Your task to perform on an android device: Go to ESPN.com Image 0: 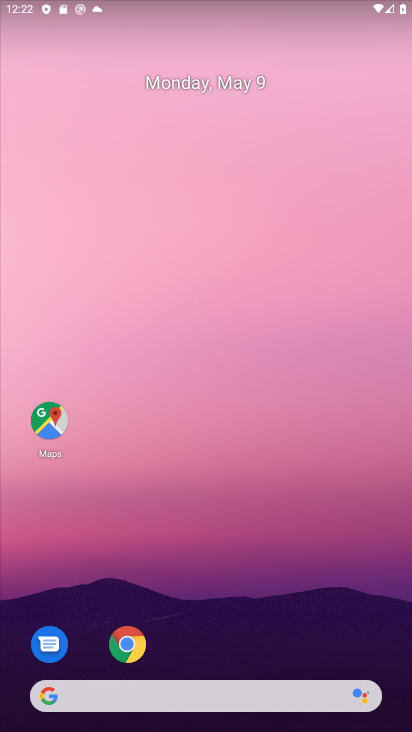
Step 0: drag from (364, 654) to (58, 1)
Your task to perform on an android device: Go to ESPN.com Image 1: 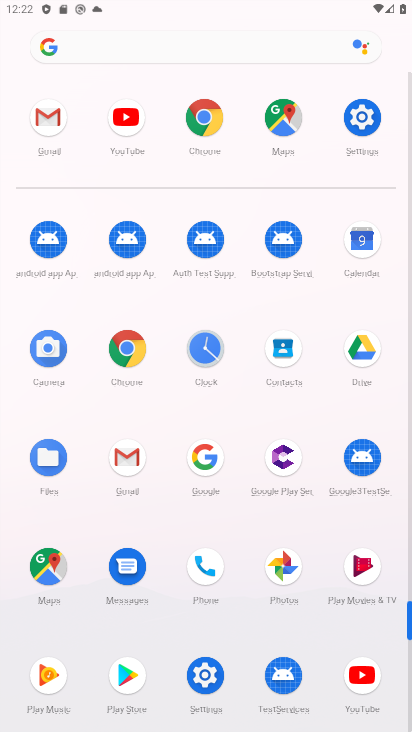
Step 1: click (204, 117)
Your task to perform on an android device: Go to ESPN.com Image 2: 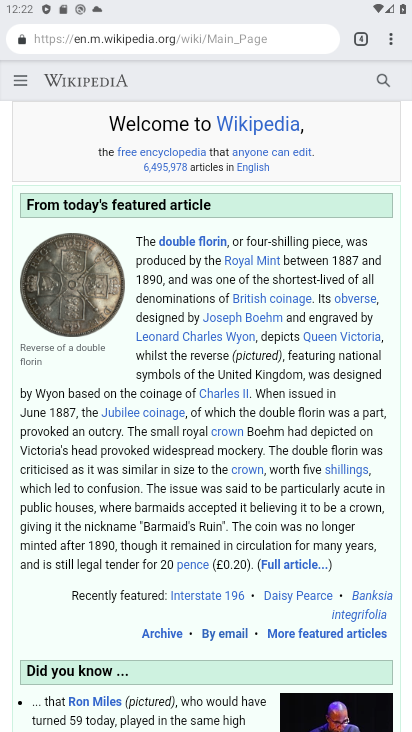
Step 2: click (391, 33)
Your task to perform on an android device: Go to ESPN.com Image 3: 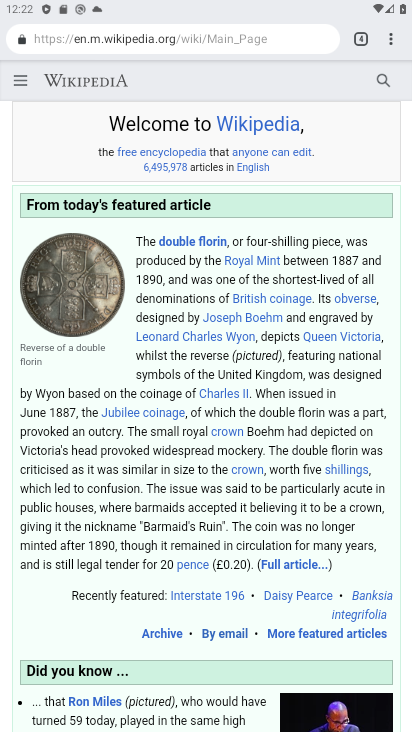
Step 3: drag from (388, 32) to (241, 74)
Your task to perform on an android device: Go to ESPN.com Image 4: 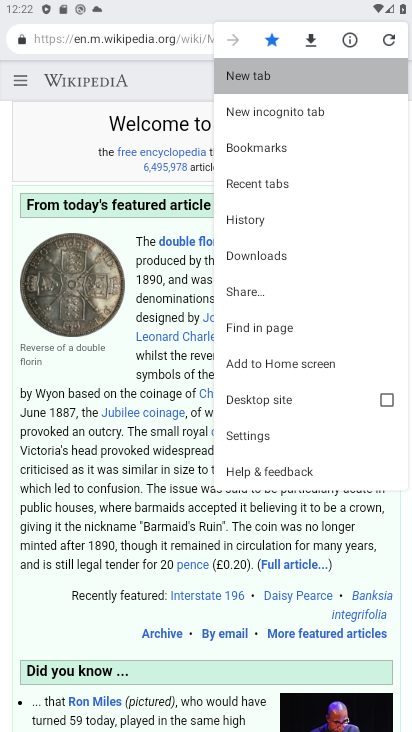
Step 4: click (241, 74)
Your task to perform on an android device: Go to ESPN.com Image 5: 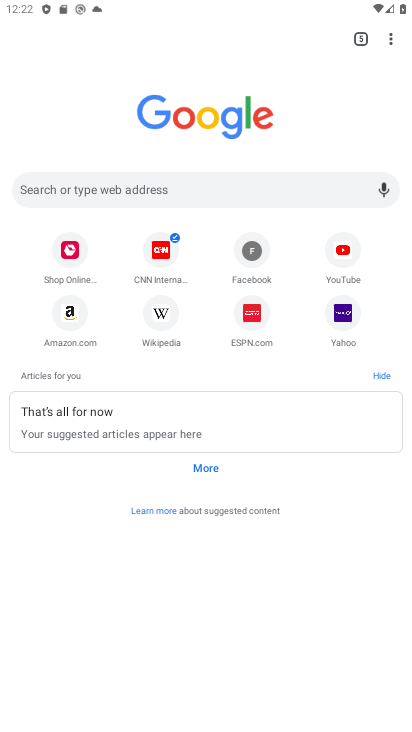
Step 5: click (252, 310)
Your task to perform on an android device: Go to ESPN.com Image 6: 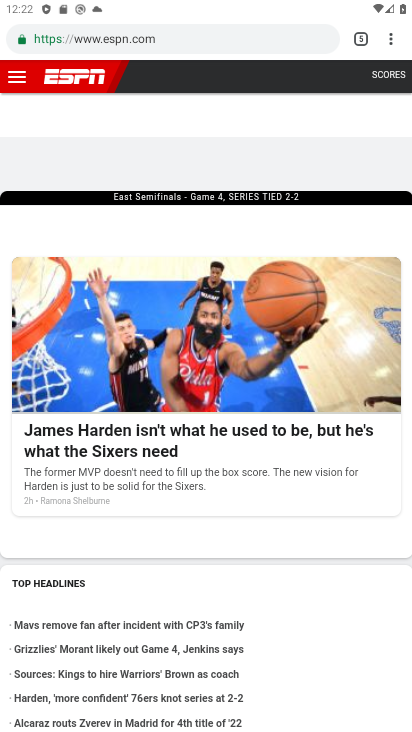
Step 6: task complete